Your task to perform on an android device: Open internet settings Image 0: 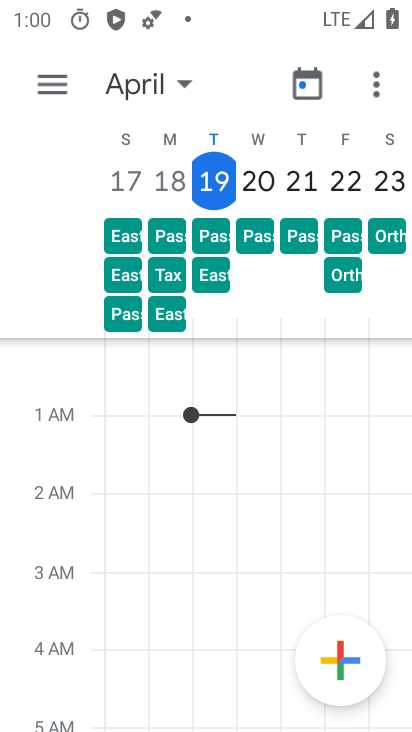
Step 0: press home button
Your task to perform on an android device: Open internet settings Image 1: 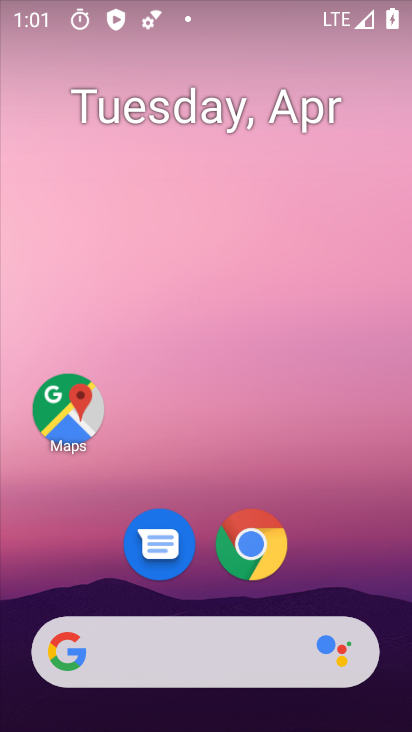
Step 1: drag from (350, 577) to (380, 55)
Your task to perform on an android device: Open internet settings Image 2: 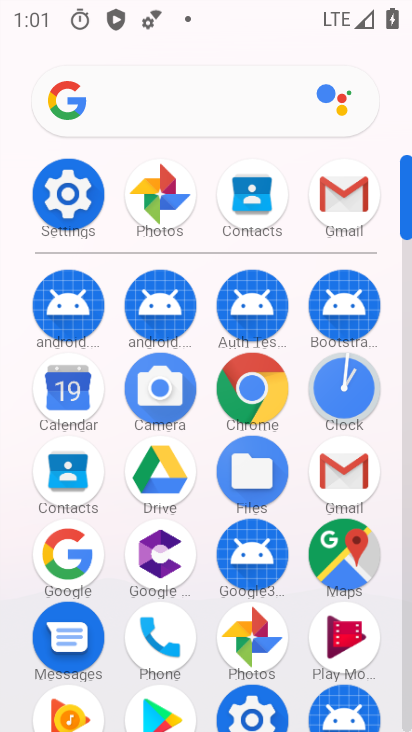
Step 2: click (59, 198)
Your task to perform on an android device: Open internet settings Image 3: 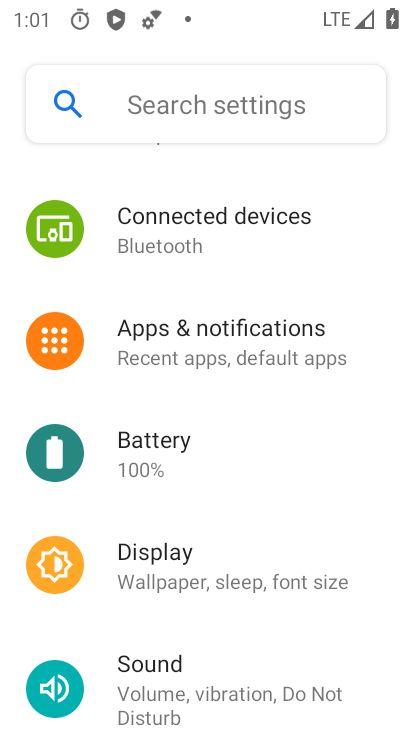
Step 3: drag from (350, 230) to (367, 372)
Your task to perform on an android device: Open internet settings Image 4: 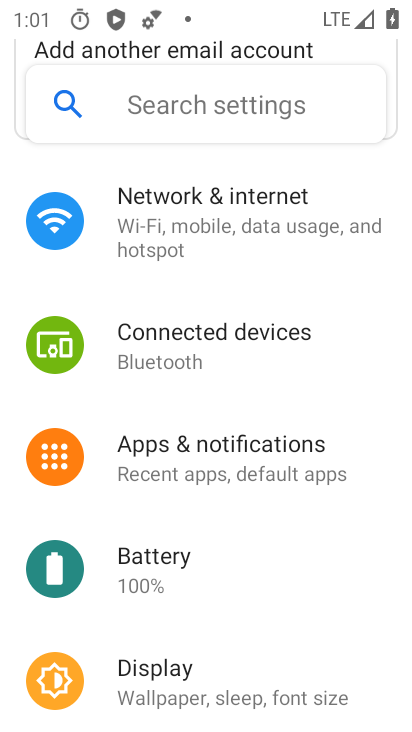
Step 4: click (208, 228)
Your task to perform on an android device: Open internet settings Image 5: 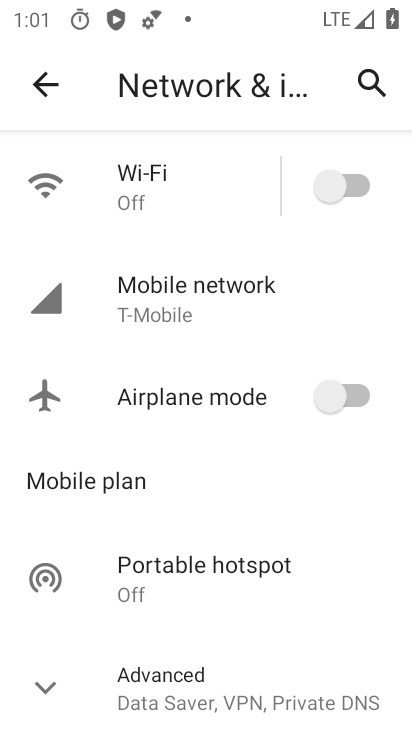
Step 5: drag from (298, 546) to (274, 376)
Your task to perform on an android device: Open internet settings Image 6: 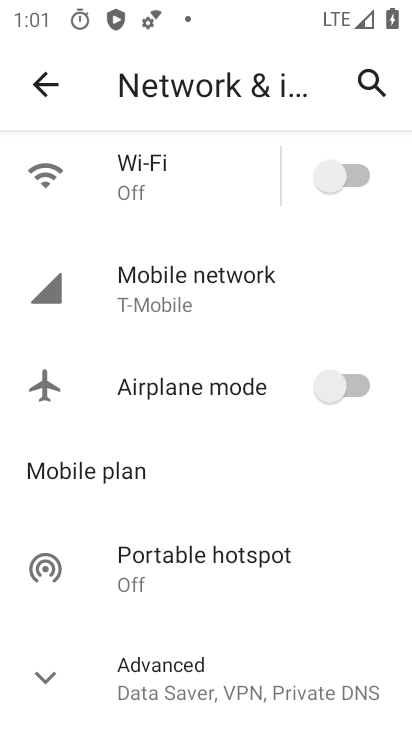
Step 6: click (54, 683)
Your task to perform on an android device: Open internet settings Image 7: 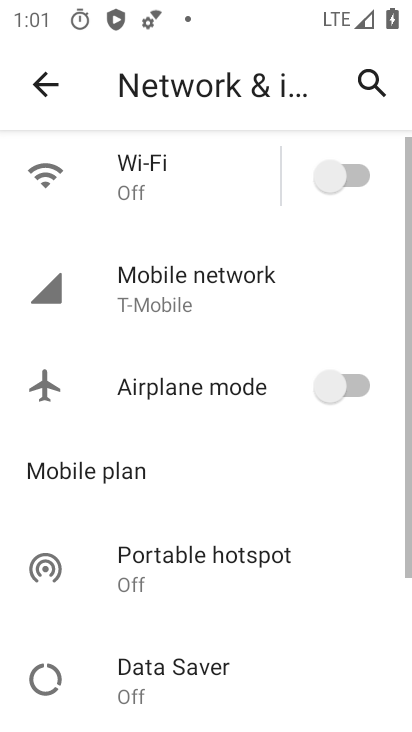
Step 7: task complete